Your task to perform on an android device: turn on showing notifications on the lock screen Image 0: 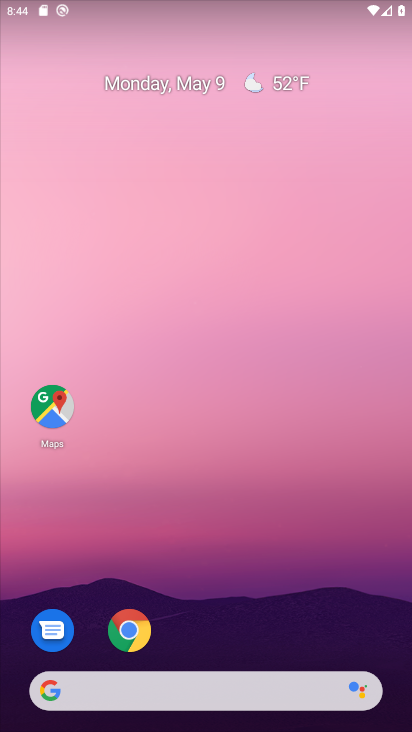
Step 0: drag from (190, 645) to (196, 91)
Your task to perform on an android device: turn on showing notifications on the lock screen Image 1: 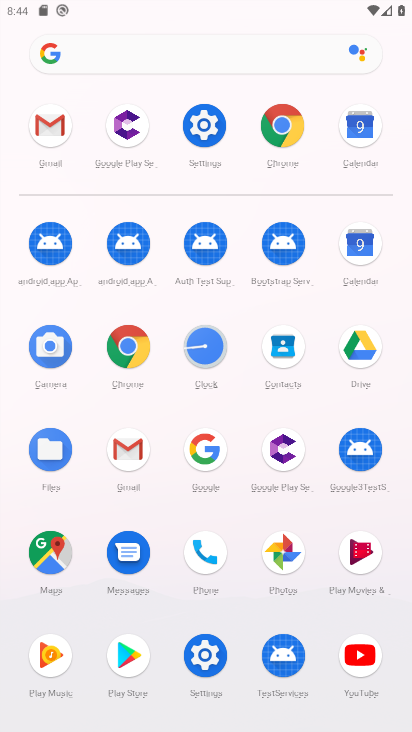
Step 1: click (195, 143)
Your task to perform on an android device: turn on showing notifications on the lock screen Image 2: 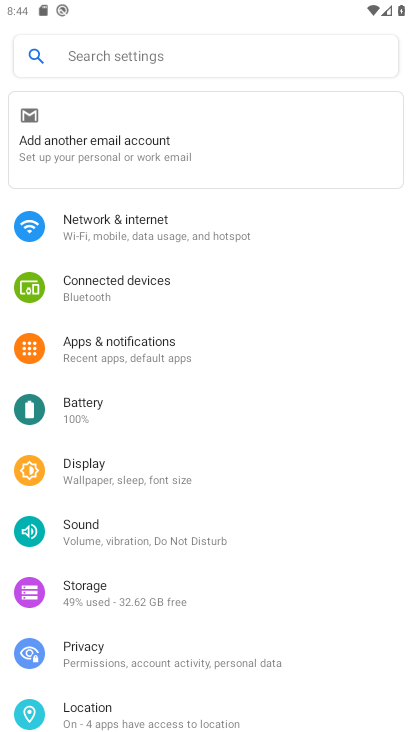
Step 2: click (133, 352)
Your task to perform on an android device: turn on showing notifications on the lock screen Image 3: 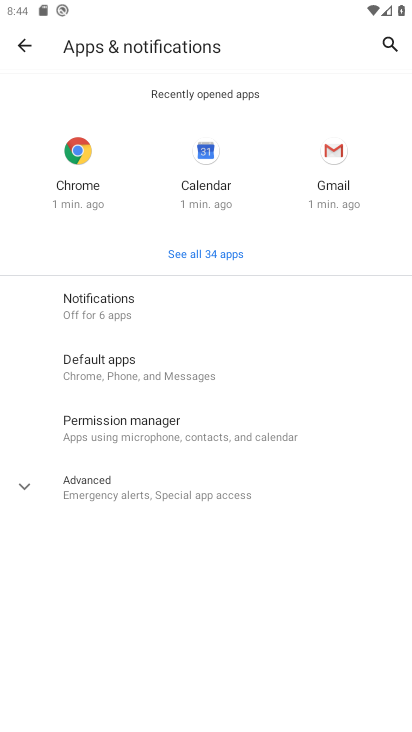
Step 3: click (107, 327)
Your task to perform on an android device: turn on showing notifications on the lock screen Image 4: 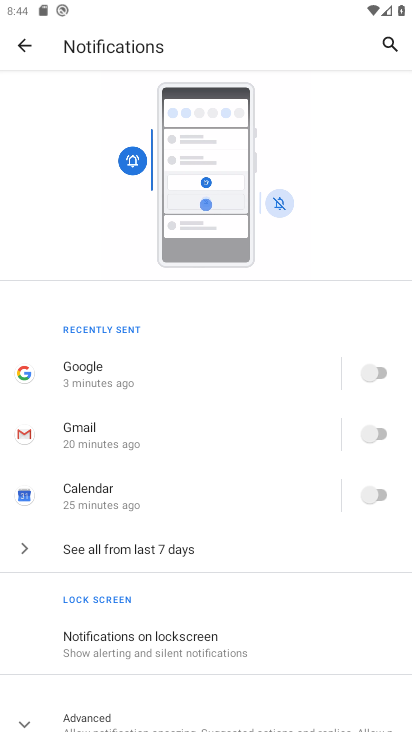
Step 4: click (131, 657)
Your task to perform on an android device: turn on showing notifications on the lock screen Image 5: 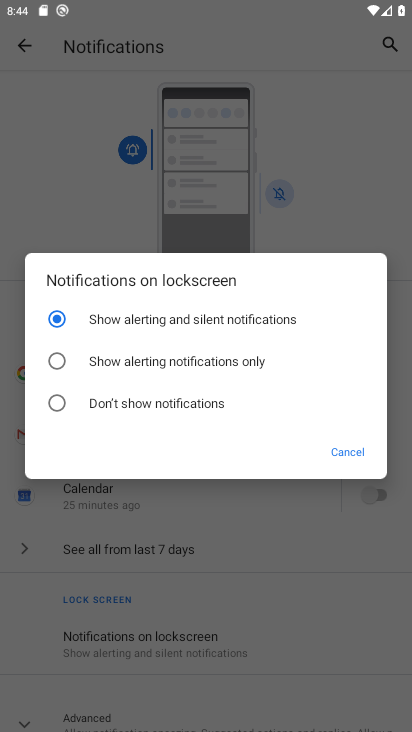
Step 5: task complete